Your task to perform on an android device: choose inbox layout in the gmail app Image 0: 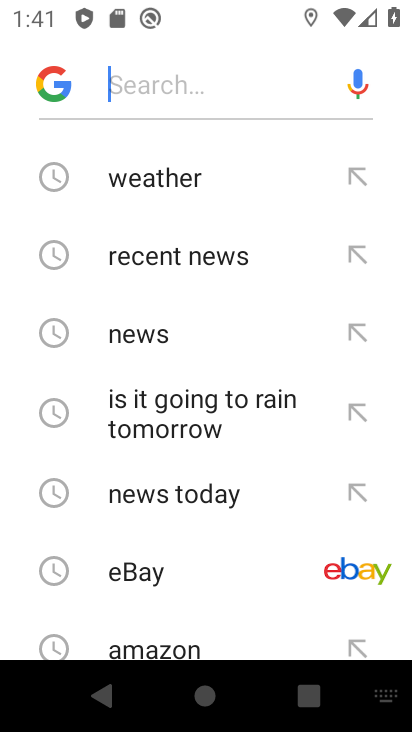
Step 0: press home button
Your task to perform on an android device: choose inbox layout in the gmail app Image 1: 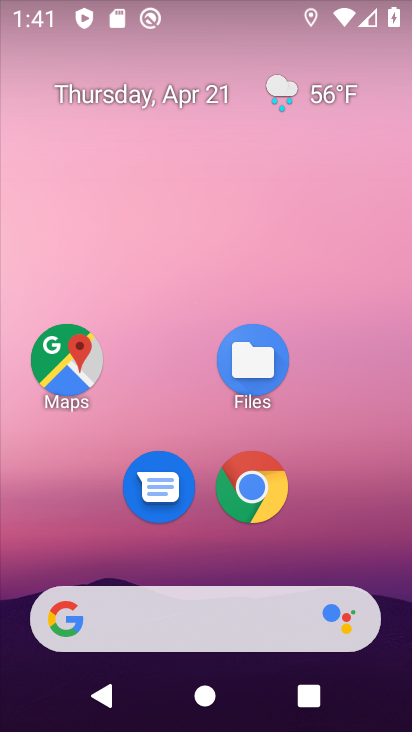
Step 1: drag from (356, 450) to (386, 149)
Your task to perform on an android device: choose inbox layout in the gmail app Image 2: 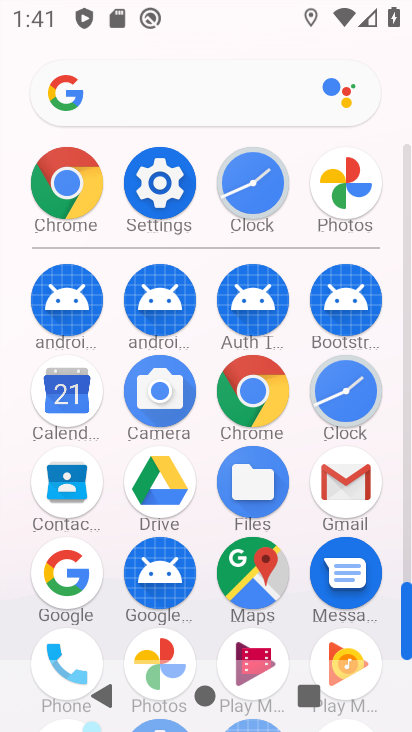
Step 2: click (347, 496)
Your task to perform on an android device: choose inbox layout in the gmail app Image 3: 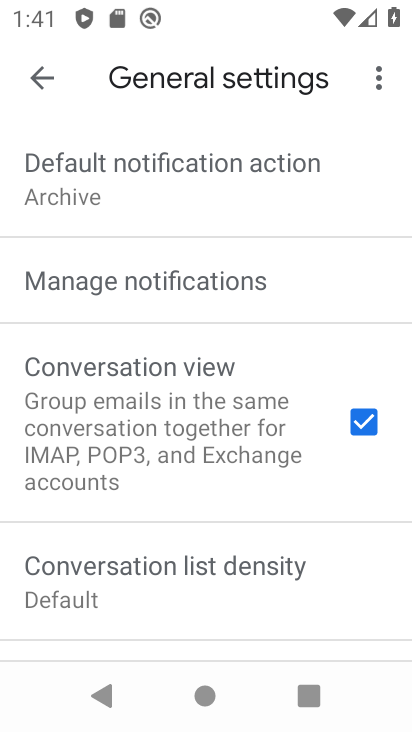
Step 3: drag from (167, 583) to (195, 292)
Your task to perform on an android device: choose inbox layout in the gmail app Image 4: 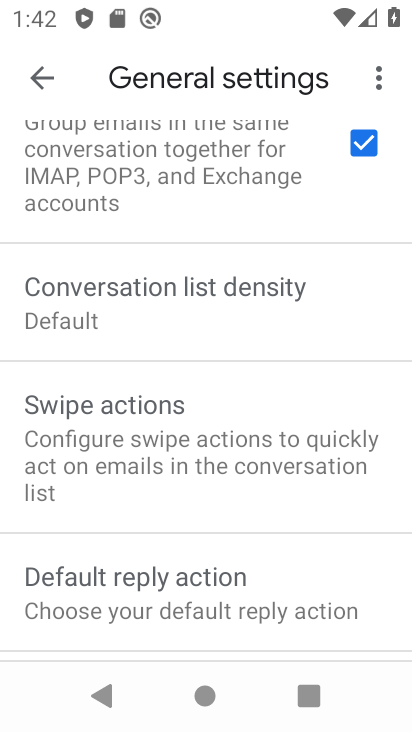
Step 4: click (23, 80)
Your task to perform on an android device: choose inbox layout in the gmail app Image 5: 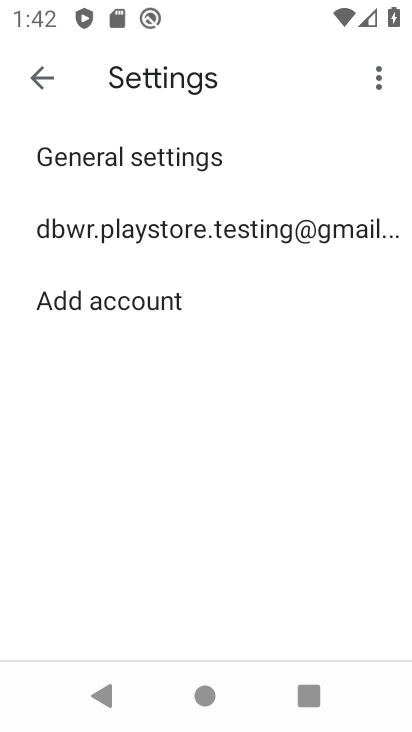
Step 5: click (212, 231)
Your task to perform on an android device: choose inbox layout in the gmail app Image 6: 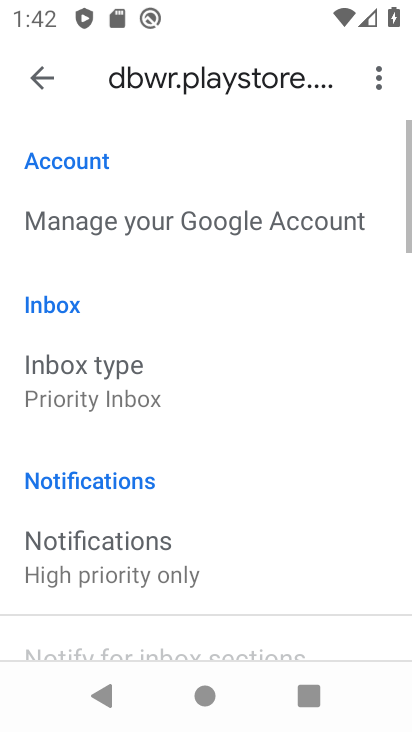
Step 6: click (128, 372)
Your task to perform on an android device: choose inbox layout in the gmail app Image 7: 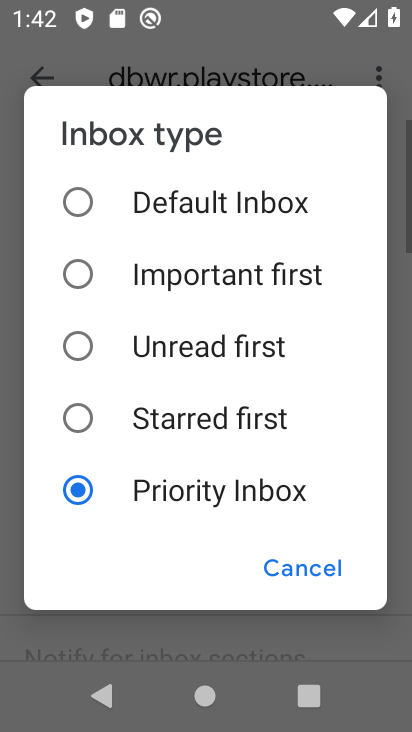
Step 7: click (153, 348)
Your task to perform on an android device: choose inbox layout in the gmail app Image 8: 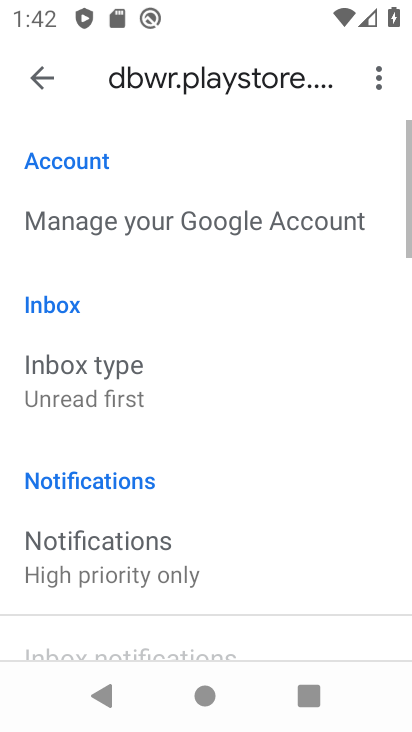
Step 8: task complete